Your task to perform on an android device: Show me popular videos on Youtube Image 0: 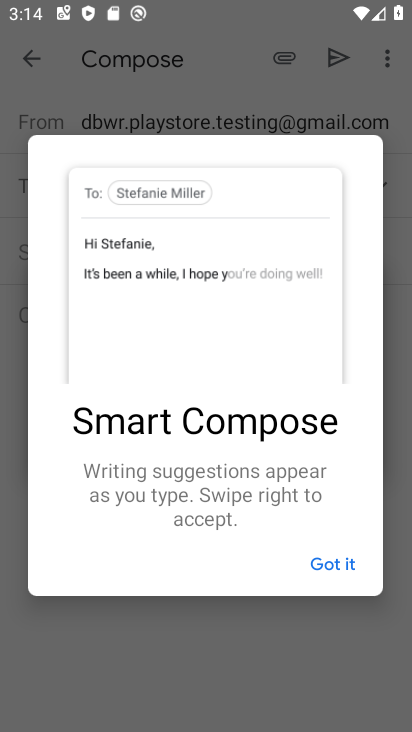
Step 0: press home button
Your task to perform on an android device: Show me popular videos on Youtube Image 1: 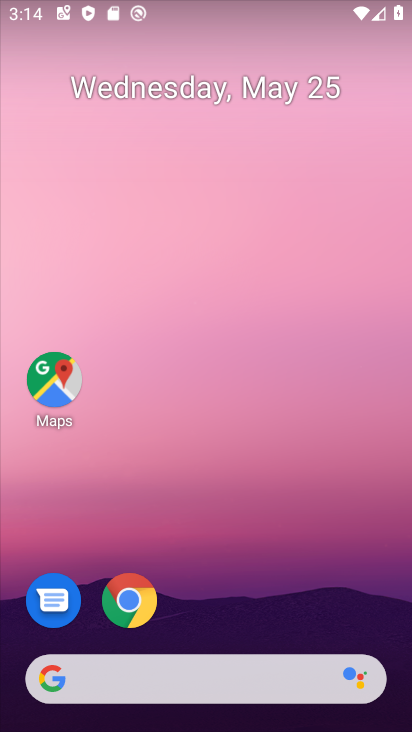
Step 1: drag from (98, 526) to (400, 78)
Your task to perform on an android device: Show me popular videos on Youtube Image 2: 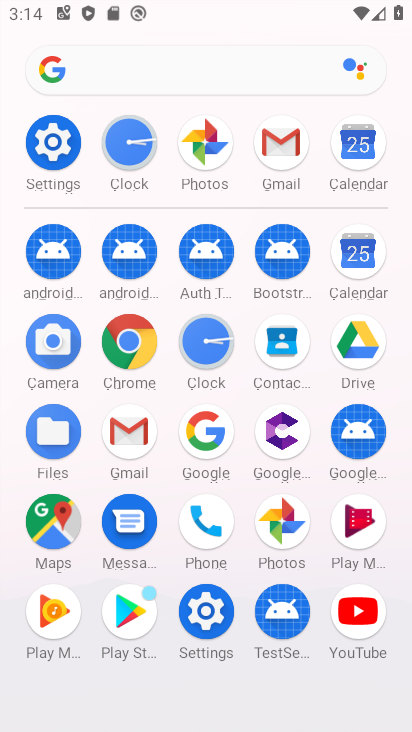
Step 2: click (353, 610)
Your task to perform on an android device: Show me popular videos on Youtube Image 3: 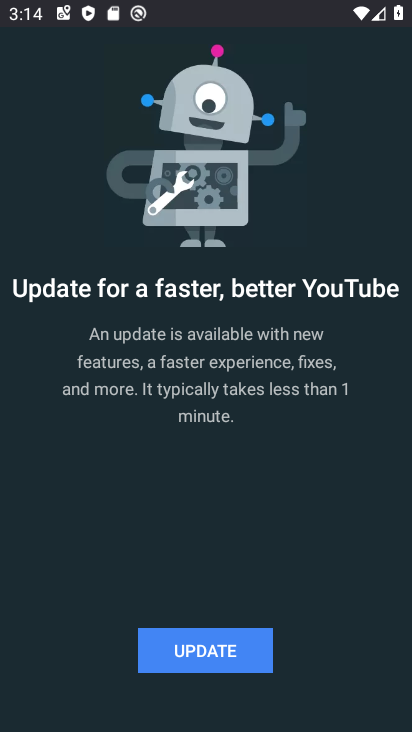
Step 3: task complete